Your task to perform on an android device: Open the map Image 0: 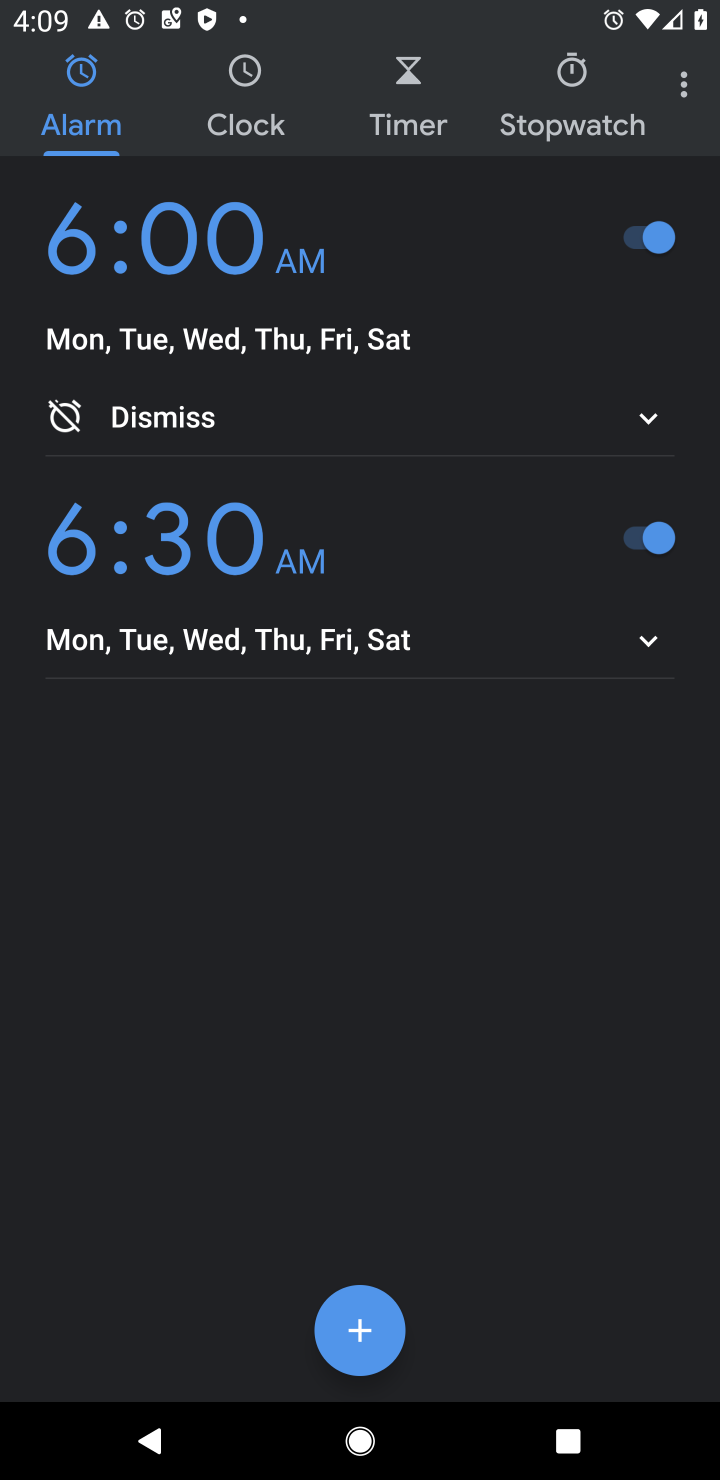
Step 0: press home button
Your task to perform on an android device: Open the map Image 1: 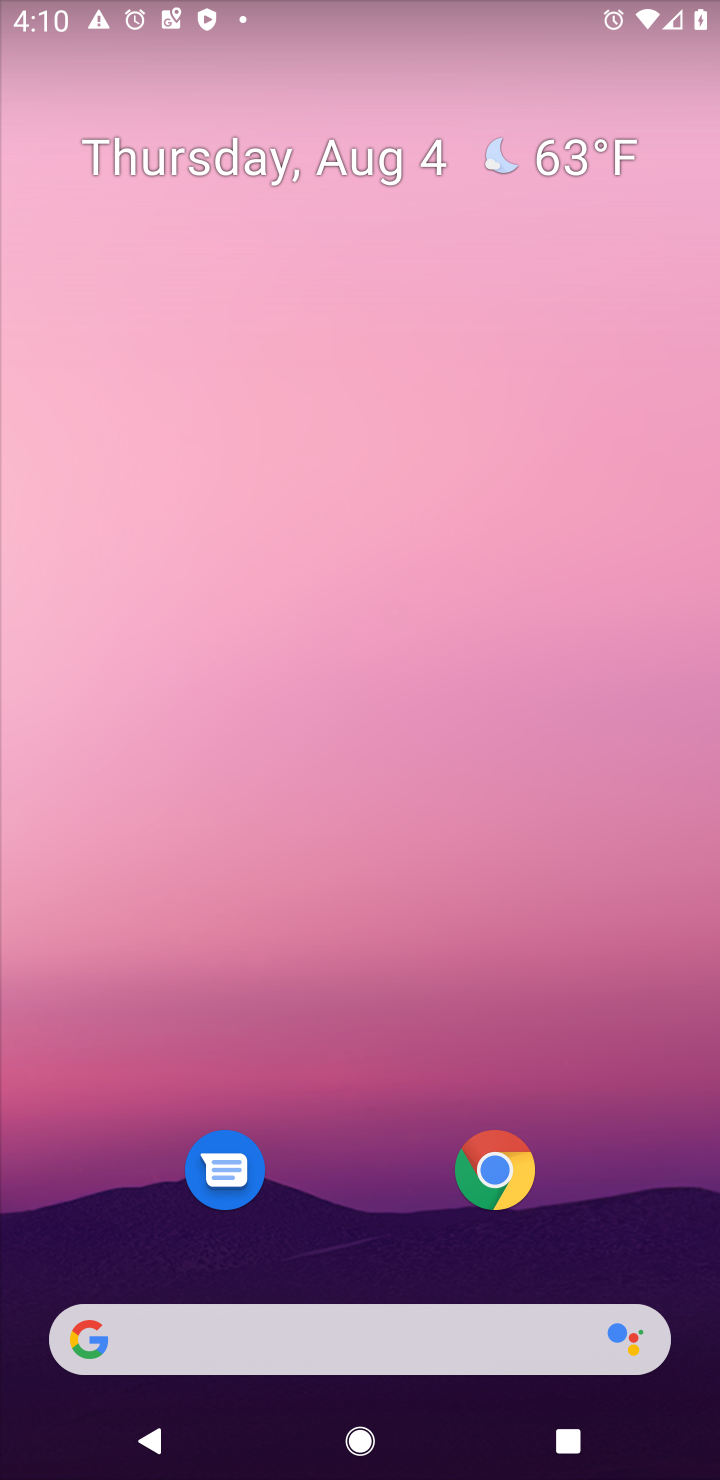
Step 1: drag from (661, 1234) to (596, 256)
Your task to perform on an android device: Open the map Image 2: 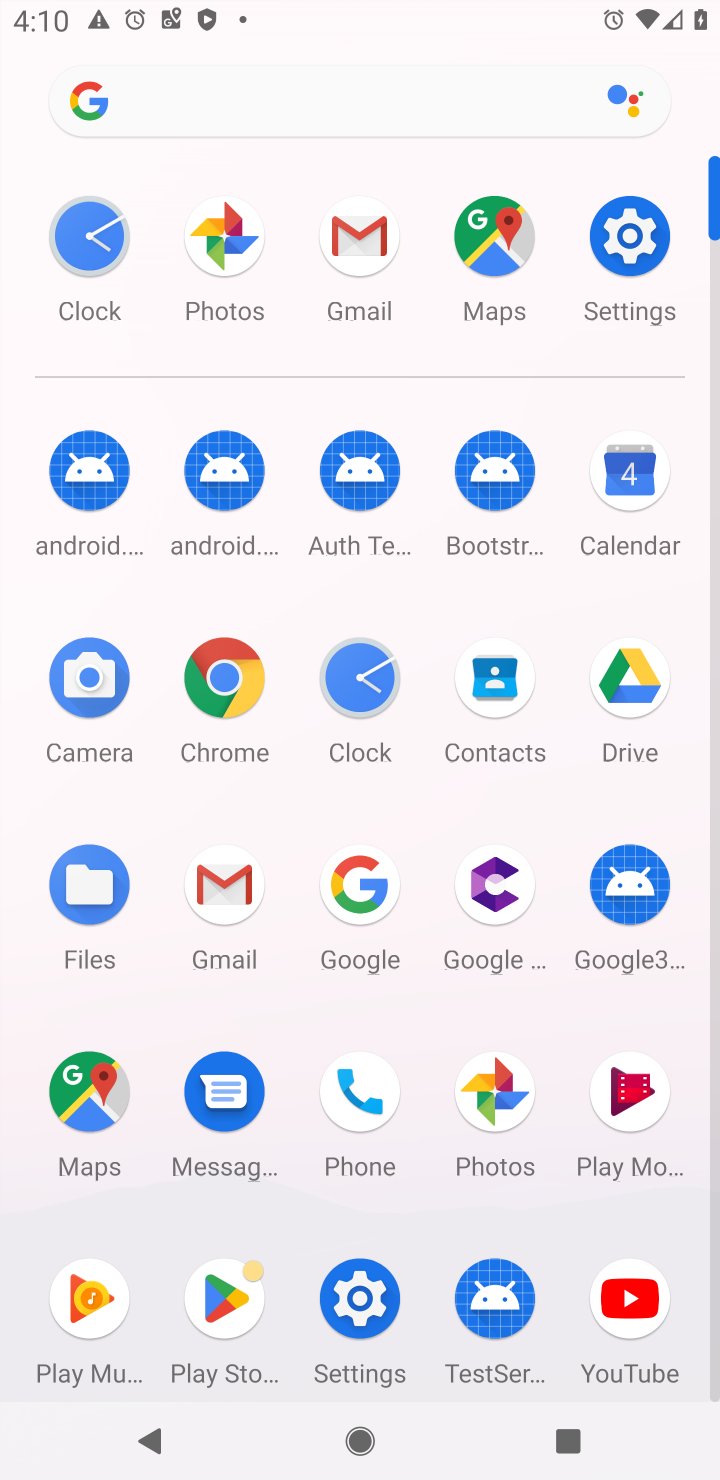
Step 2: click (87, 1096)
Your task to perform on an android device: Open the map Image 3: 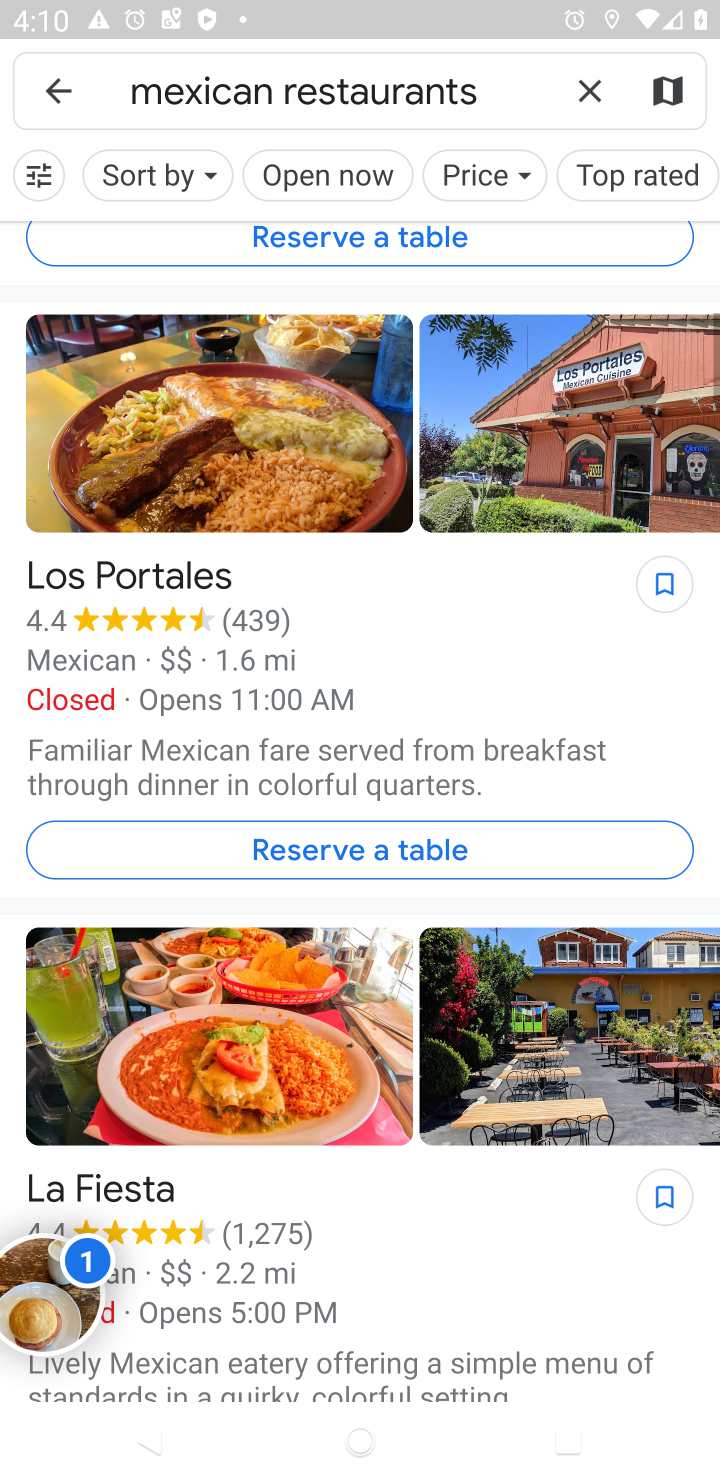
Step 3: click (584, 86)
Your task to perform on an android device: Open the map Image 4: 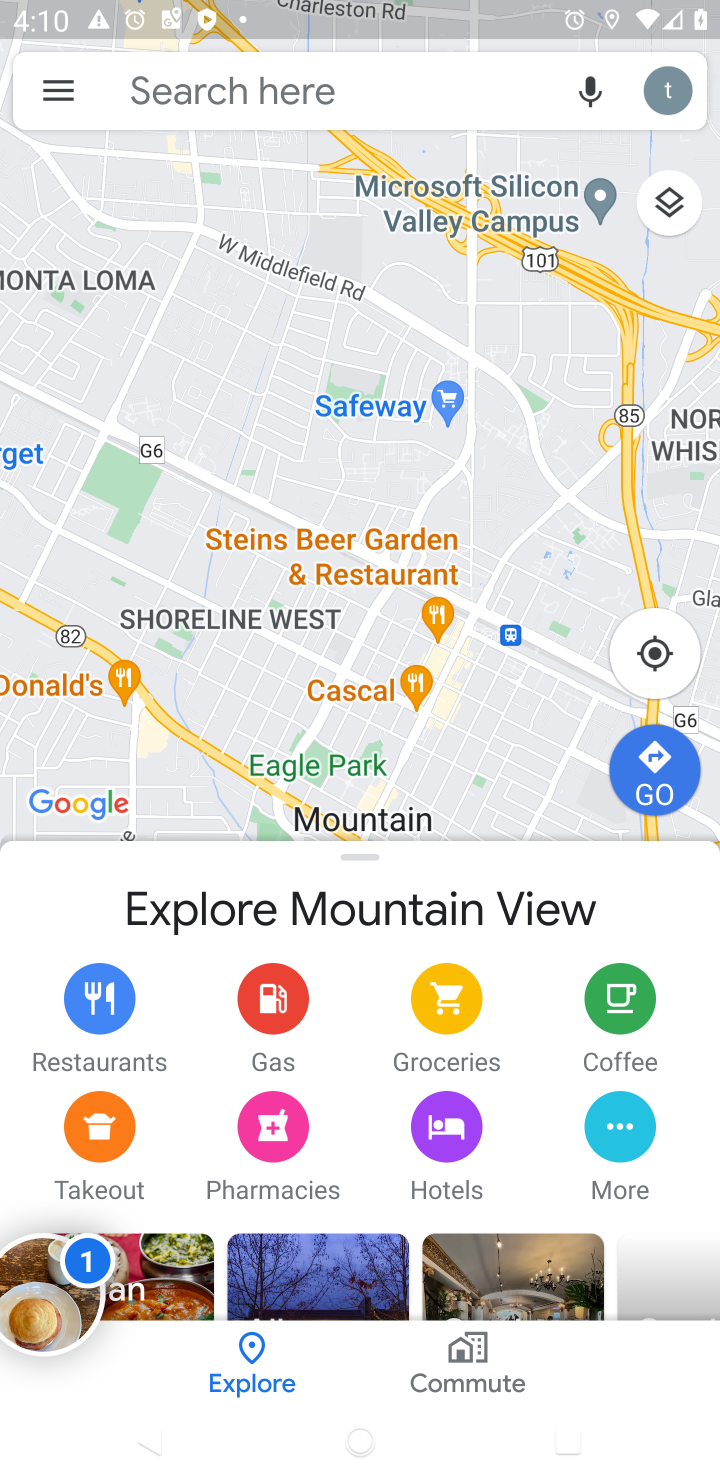
Step 4: task complete